Your task to perform on an android device: read, delete, or share a saved page in the chrome app Image 0: 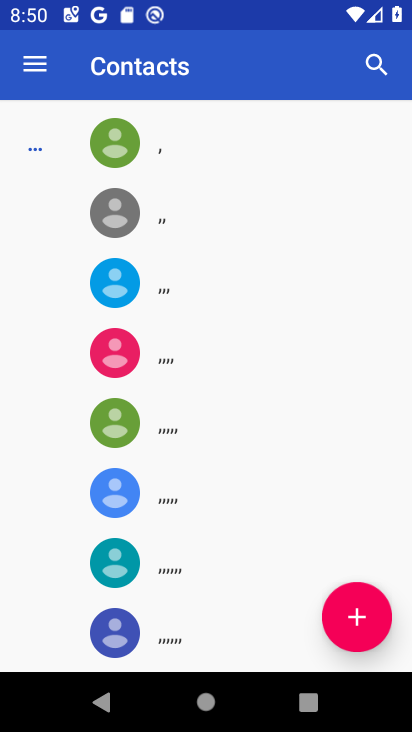
Step 0: press home button
Your task to perform on an android device: read, delete, or share a saved page in the chrome app Image 1: 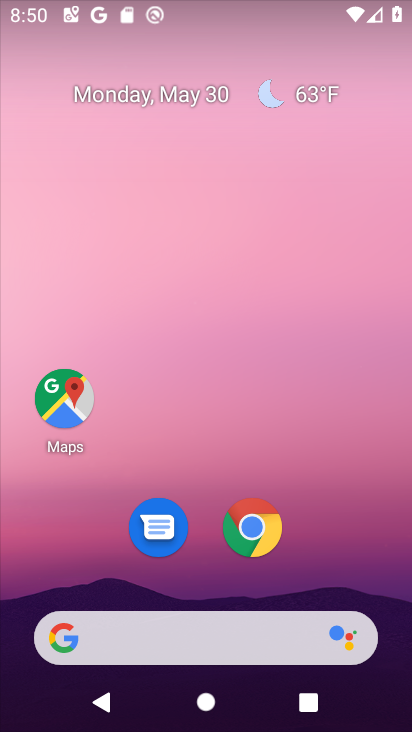
Step 1: click (264, 512)
Your task to perform on an android device: read, delete, or share a saved page in the chrome app Image 2: 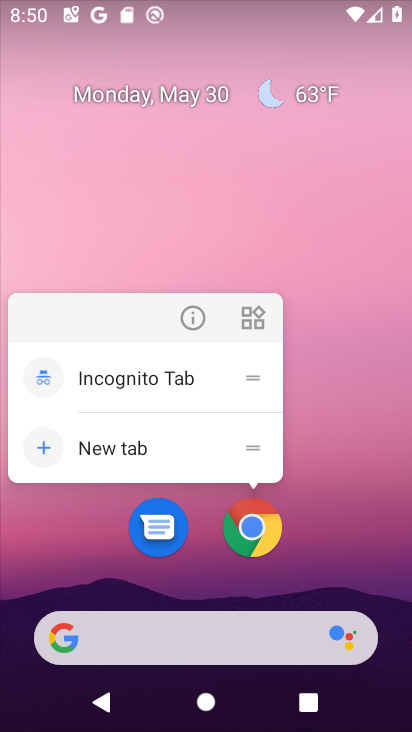
Step 2: click (260, 524)
Your task to perform on an android device: read, delete, or share a saved page in the chrome app Image 3: 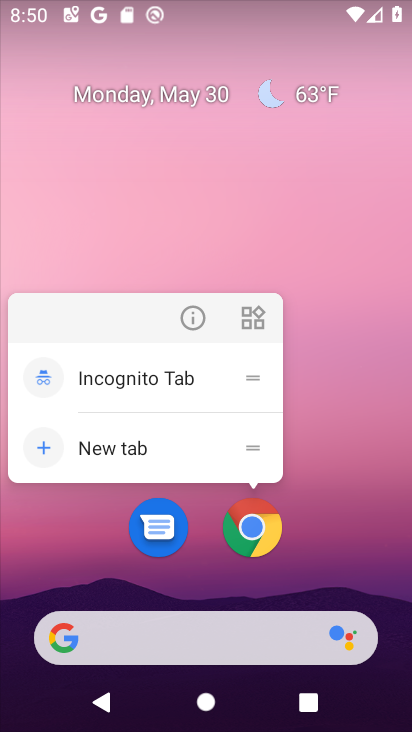
Step 3: click (245, 534)
Your task to perform on an android device: read, delete, or share a saved page in the chrome app Image 4: 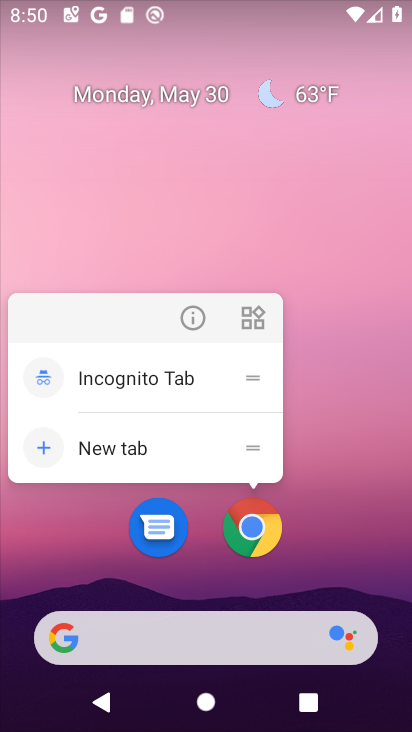
Step 4: click (241, 531)
Your task to perform on an android device: read, delete, or share a saved page in the chrome app Image 5: 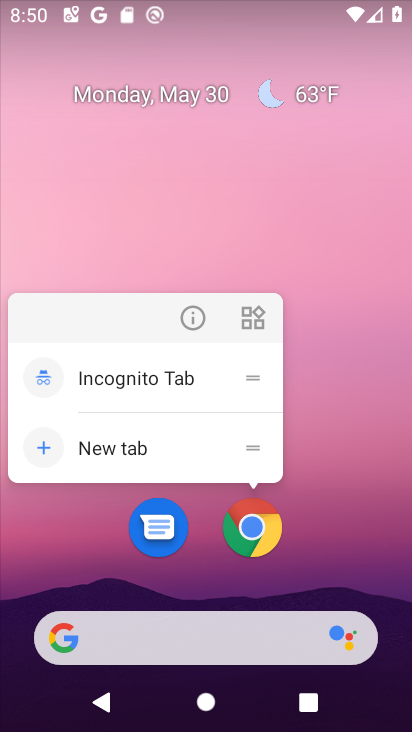
Step 5: click (242, 530)
Your task to perform on an android device: read, delete, or share a saved page in the chrome app Image 6: 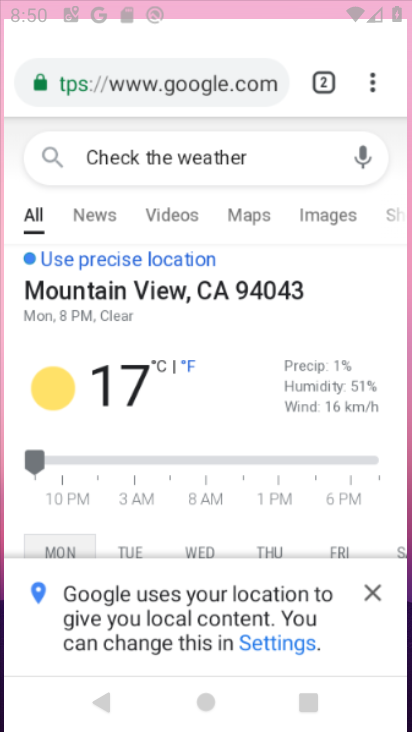
Step 6: click (257, 530)
Your task to perform on an android device: read, delete, or share a saved page in the chrome app Image 7: 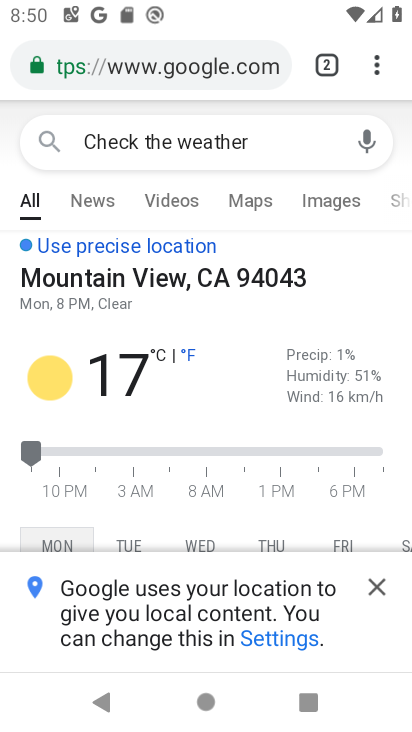
Step 7: click (373, 60)
Your task to perform on an android device: read, delete, or share a saved page in the chrome app Image 8: 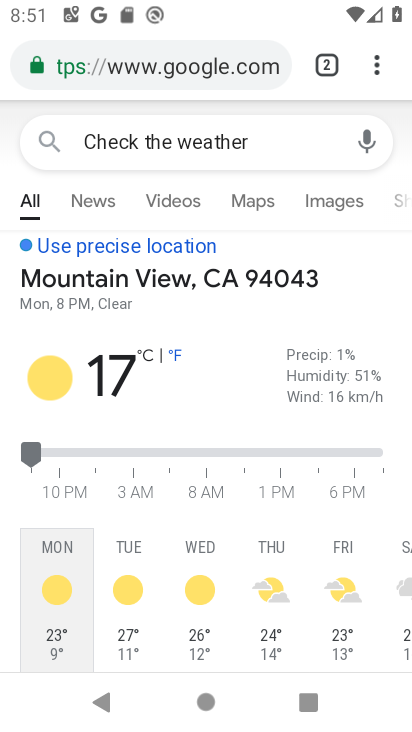
Step 8: click (379, 51)
Your task to perform on an android device: read, delete, or share a saved page in the chrome app Image 9: 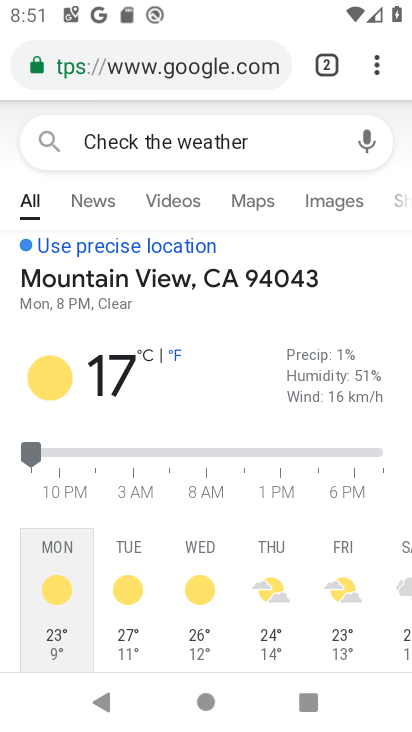
Step 9: click (371, 63)
Your task to perform on an android device: read, delete, or share a saved page in the chrome app Image 10: 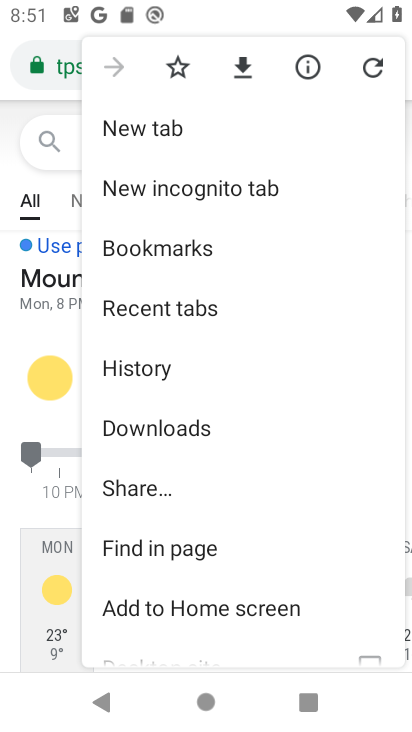
Step 10: click (165, 425)
Your task to perform on an android device: read, delete, or share a saved page in the chrome app Image 11: 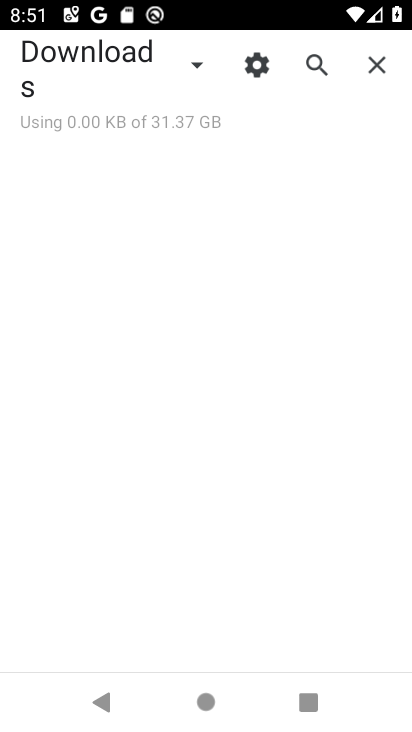
Step 11: click (198, 65)
Your task to perform on an android device: read, delete, or share a saved page in the chrome app Image 12: 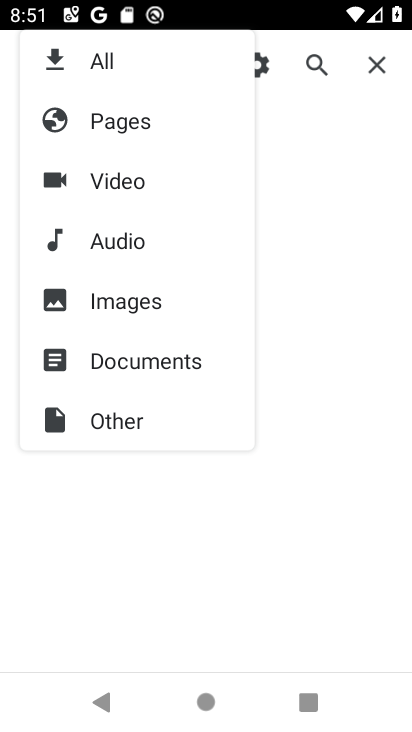
Step 12: click (133, 123)
Your task to perform on an android device: read, delete, or share a saved page in the chrome app Image 13: 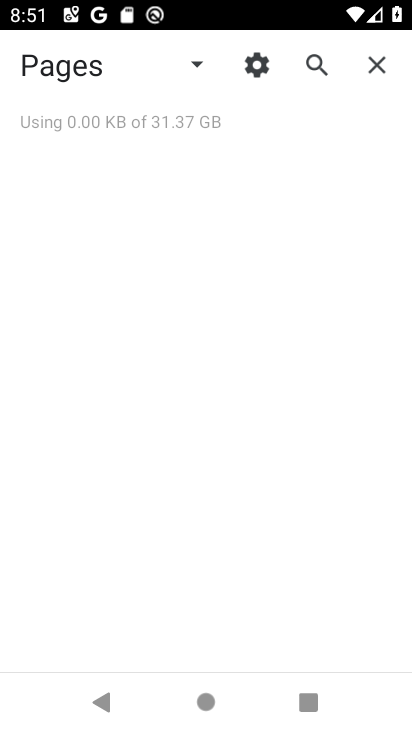
Step 13: task complete